Your task to perform on an android device: turn on wifi Image 0: 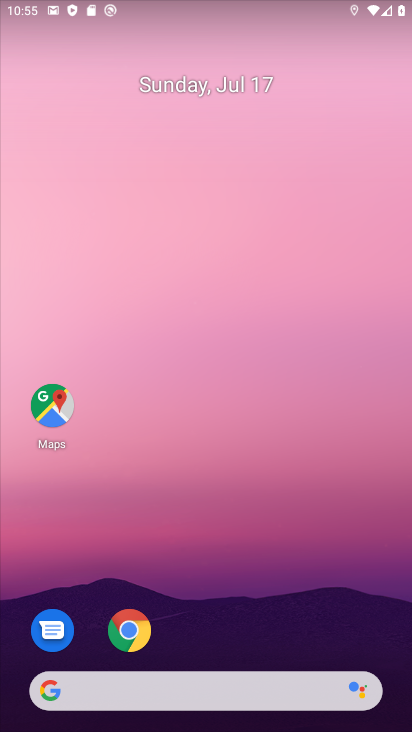
Step 0: drag from (206, 659) to (234, 207)
Your task to perform on an android device: turn on wifi Image 1: 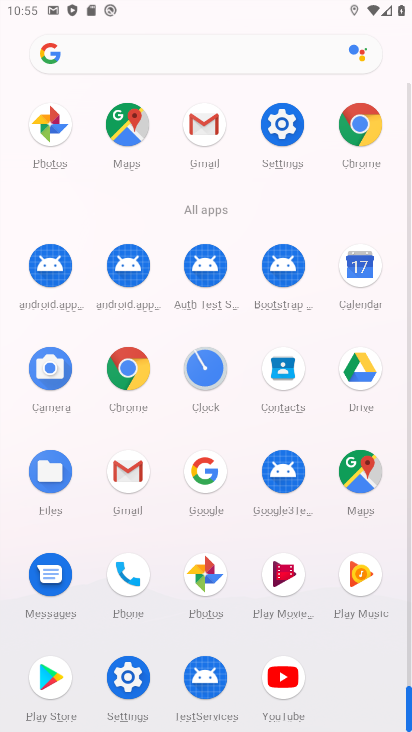
Step 1: click (136, 668)
Your task to perform on an android device: turn on wifi Image 2: 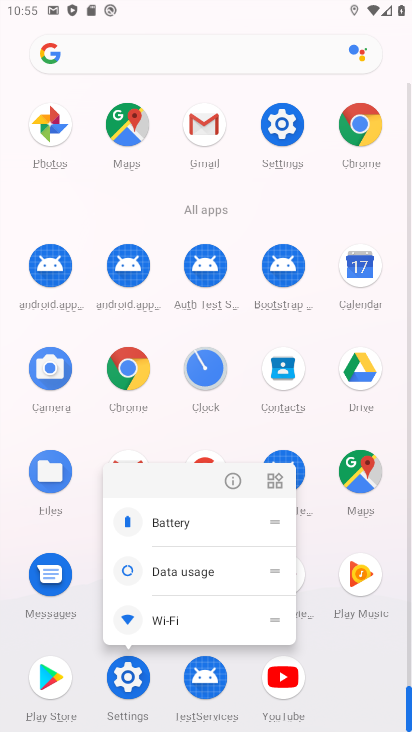
Step 2: click (133, 682)
Your task to perform on an android device: turn on wifi Image 3: 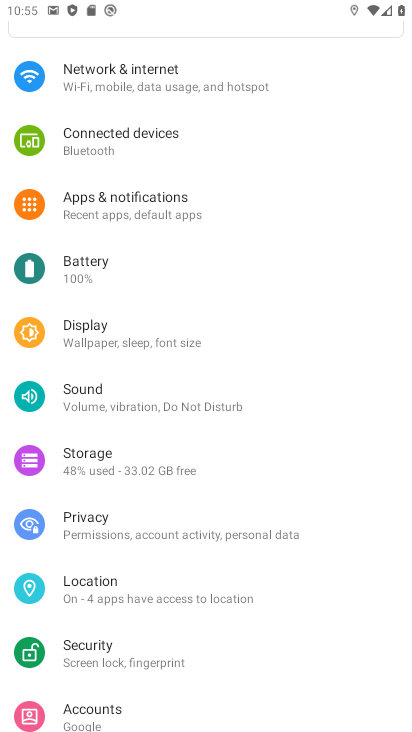
Step 3: click (151, 87)
Your task to perform on an android device: turn on wifi Image 4: 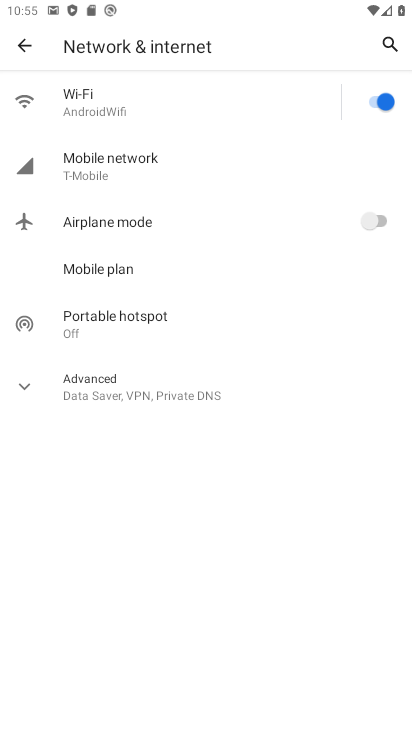
Step 4: task complete